Your task to perform on an android device: change the clock display to analog Image 0: 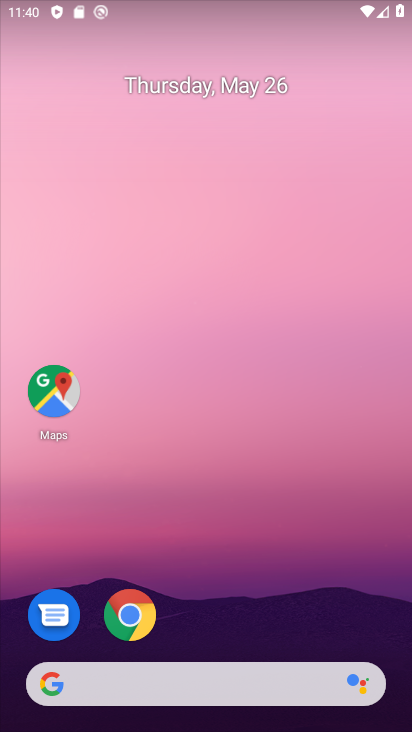
Step 0: press home button
Your task to perform on an android device: change the clock display to analog Image 1: 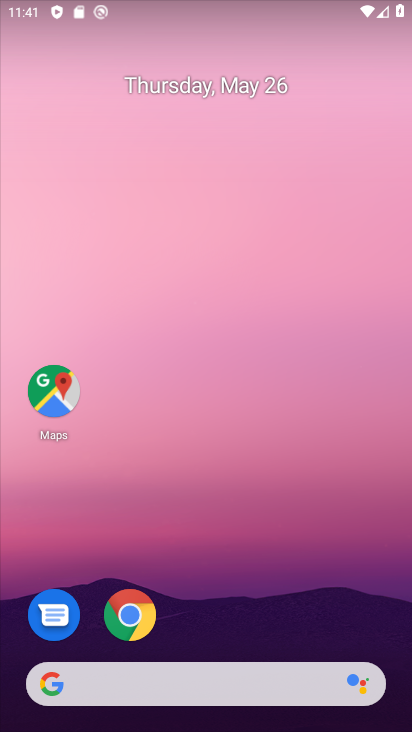
Step 1: drag from (408, 655) to (305, 9)
Your task to perform on an android device: change the clock display to analog Image 2: 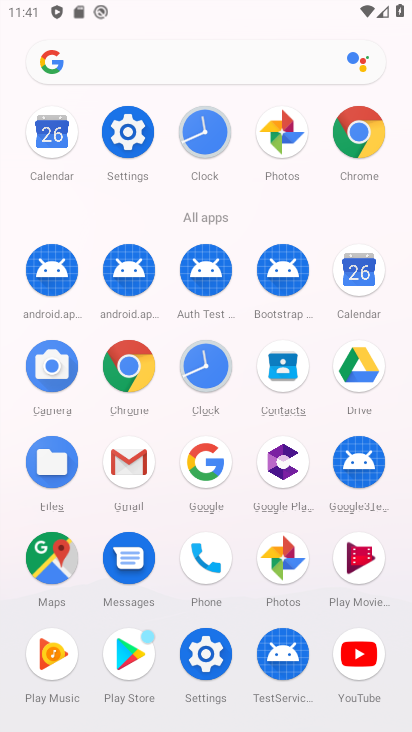
Step 2: click (216, 384)
Your task to perform on an android device: change the clock display to analog Image 3: 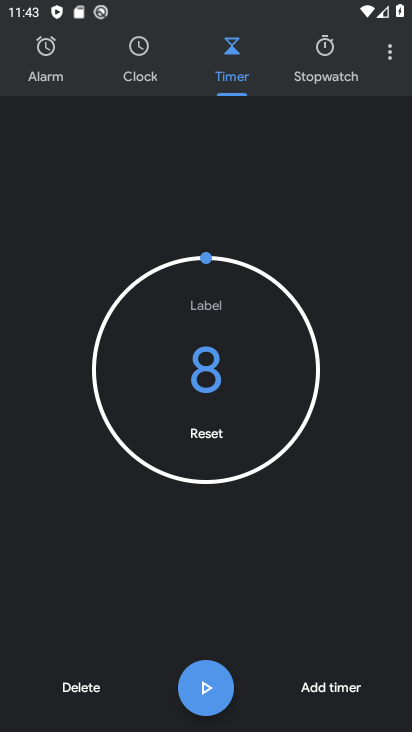
Step 3: click (395, 53)
Your task to perform on an android device: change the clock display to analog Image 4: 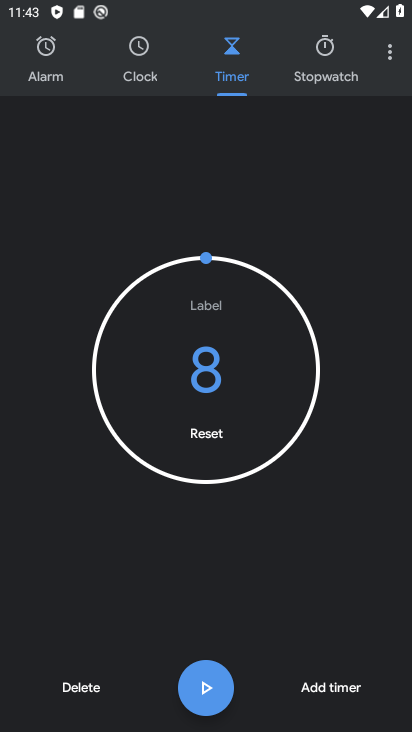
Step 4: click (382, 55)
Your task to perform on an android device: change the clock display to analog Image 5: 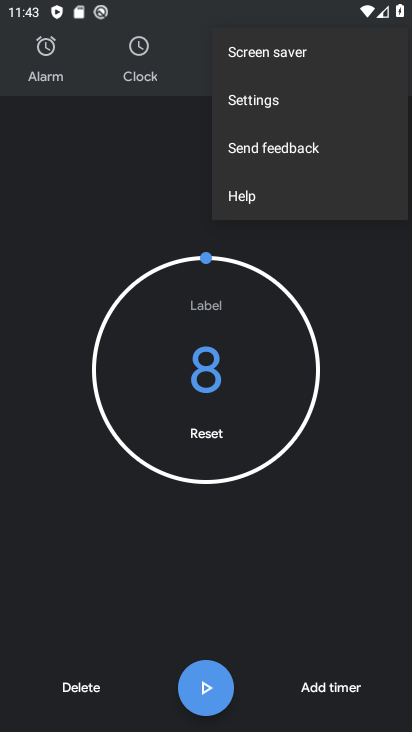
Step 5: click (291, 96)
Your task to perform on an android device: change the clock display to analog Image 6: 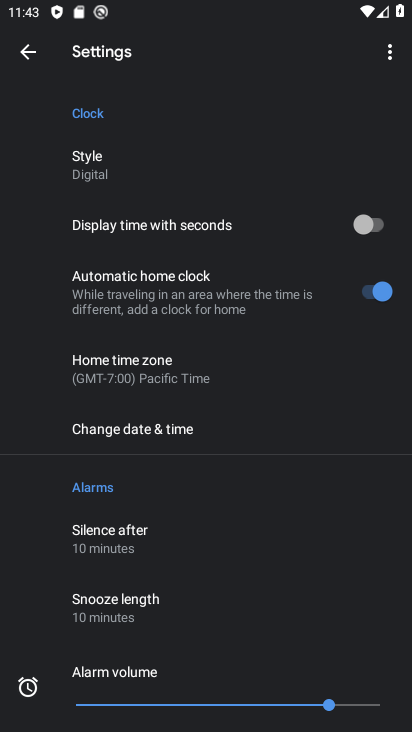
Step 6: click (104, 163)
Your task to perform on an android device: change the clock display to analog Image 7: 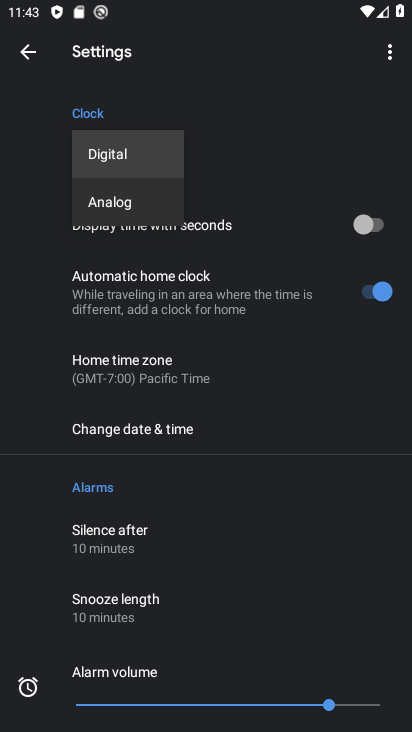
Step 7: click (108, 217)
Your task to perform on an android device: change the clock display to analog Image 8: 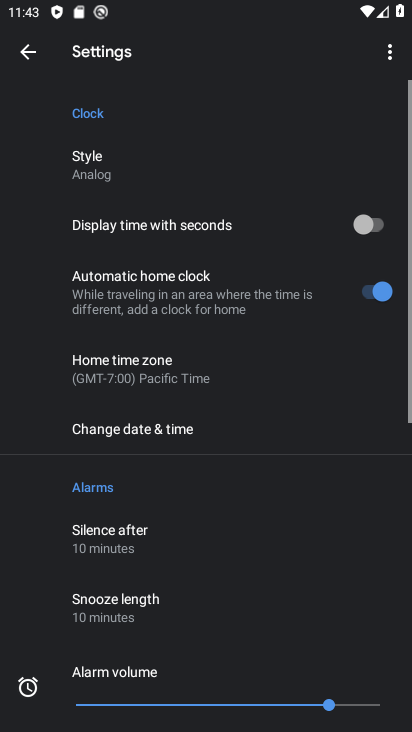
Step 8: task complete